Your task to perform on an android device: Check the news Image 0: 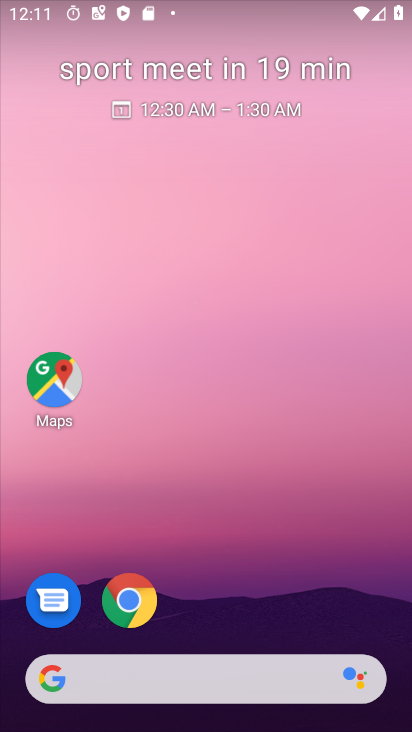
Step 0: click (207, 684)
Your task to perform on an android device: Check the news Image 1: 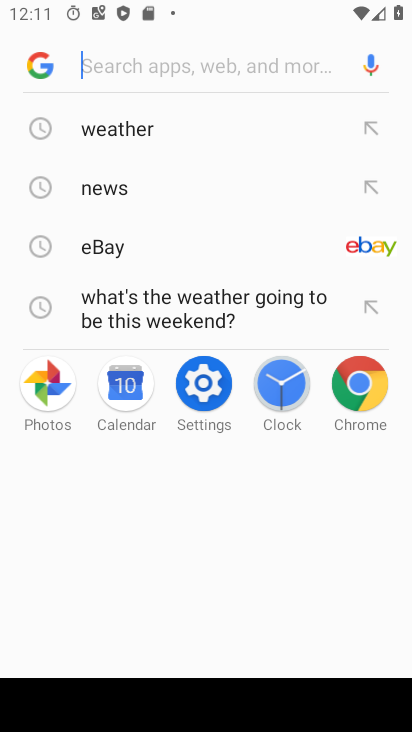
Step 1: click (128, 194)
Your task to perform on an android device: Check the news Image 2: 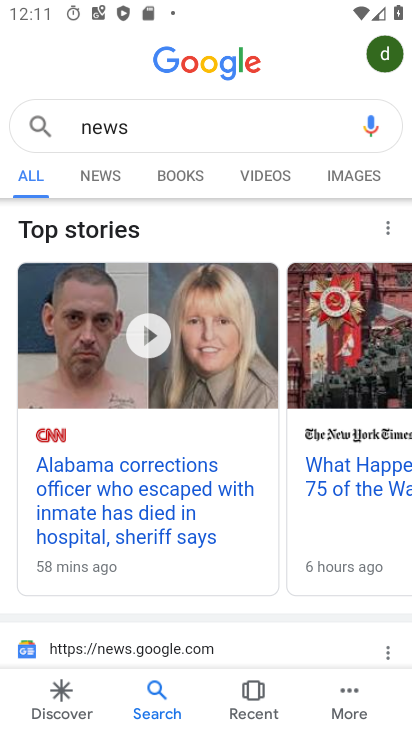
Step 2: task complete